Your task to perform on an android device: Add logitech g933 to the cart on costco.com, then select checkout. Image 0: 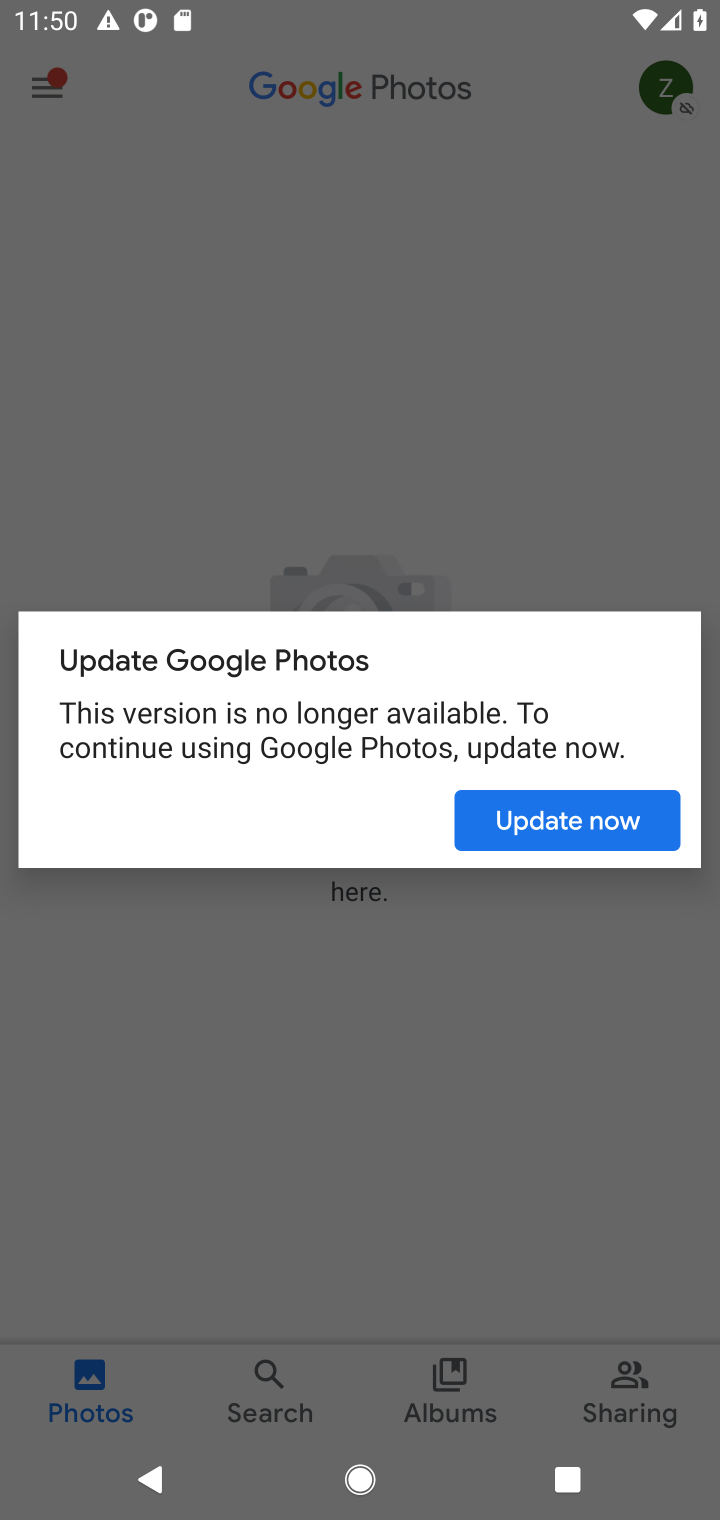
Step 0: press home button
Your task to perform on an android device: Add logitech g933 to the cart on costco.com, then select checkout. Image 1: 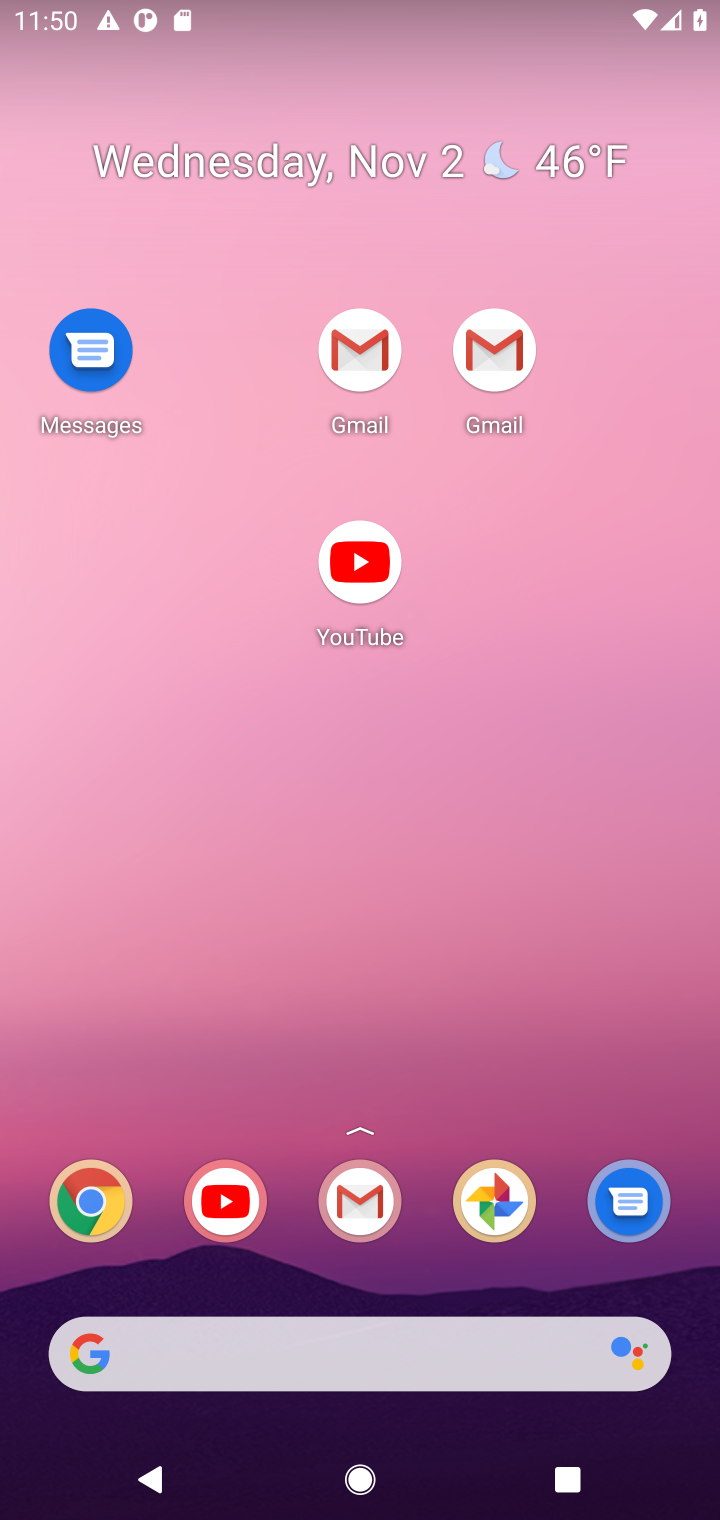
Step 1: drag from (408, 1273) to (540, 165)
Your task to perform on an android device: Add logitech g933 to the cart on costco.com, then select checkout. Image 2: 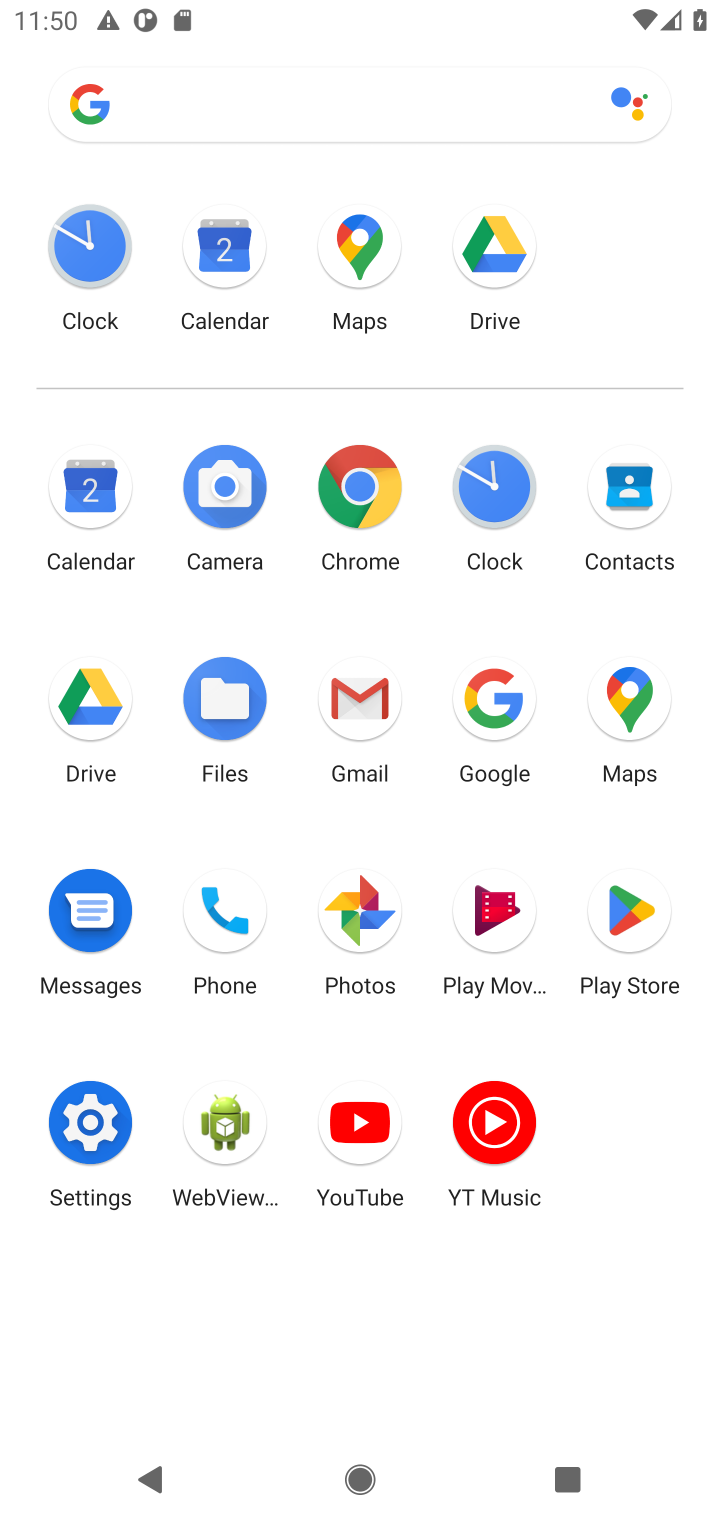
Step 2: click (361, 484)
Your task to perform on an android device: Add logitech g933 to the cart on costco.com, then select checkout. Image 3: 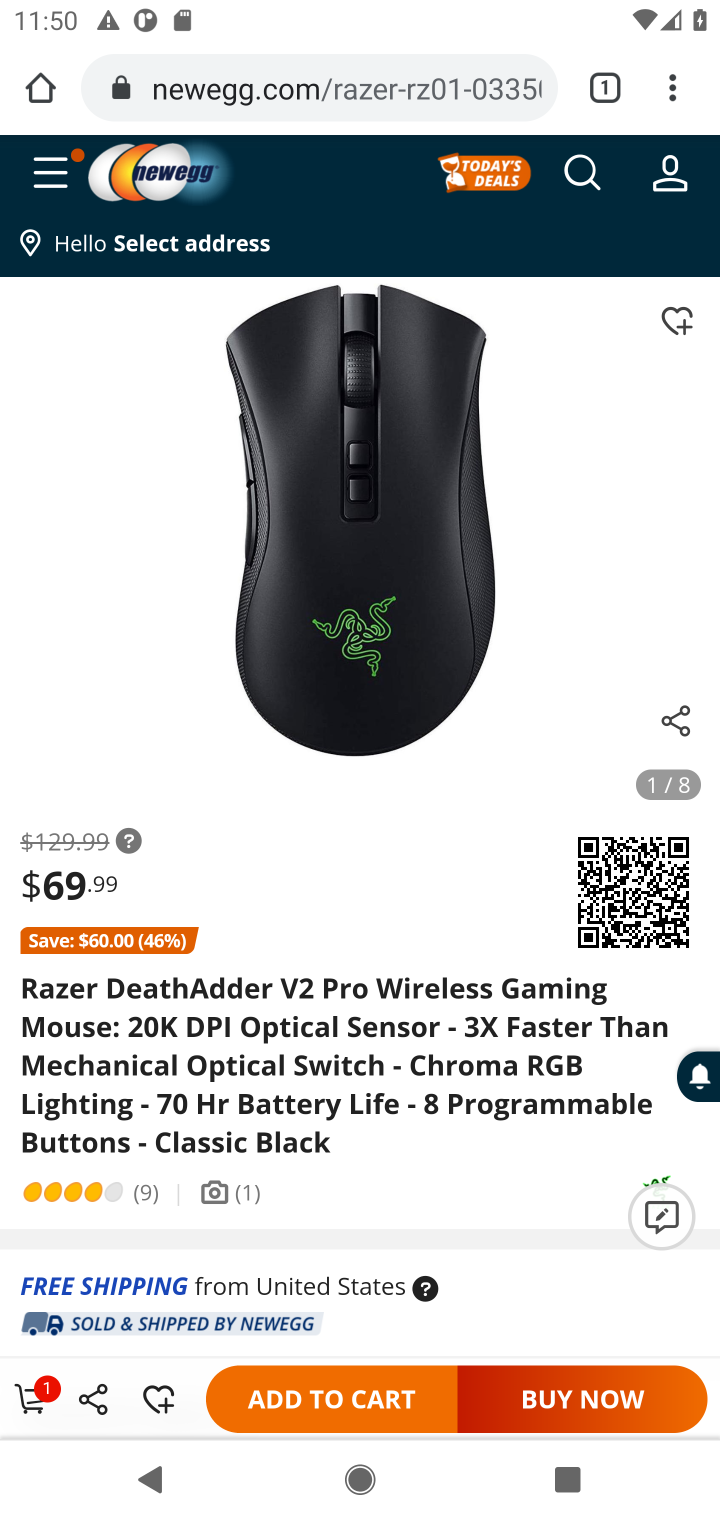
Step 3: click (359, 105)
Your task to perform on an android device: Add logitech g933 to the cart on costco.com, then select checkout. Image 4: 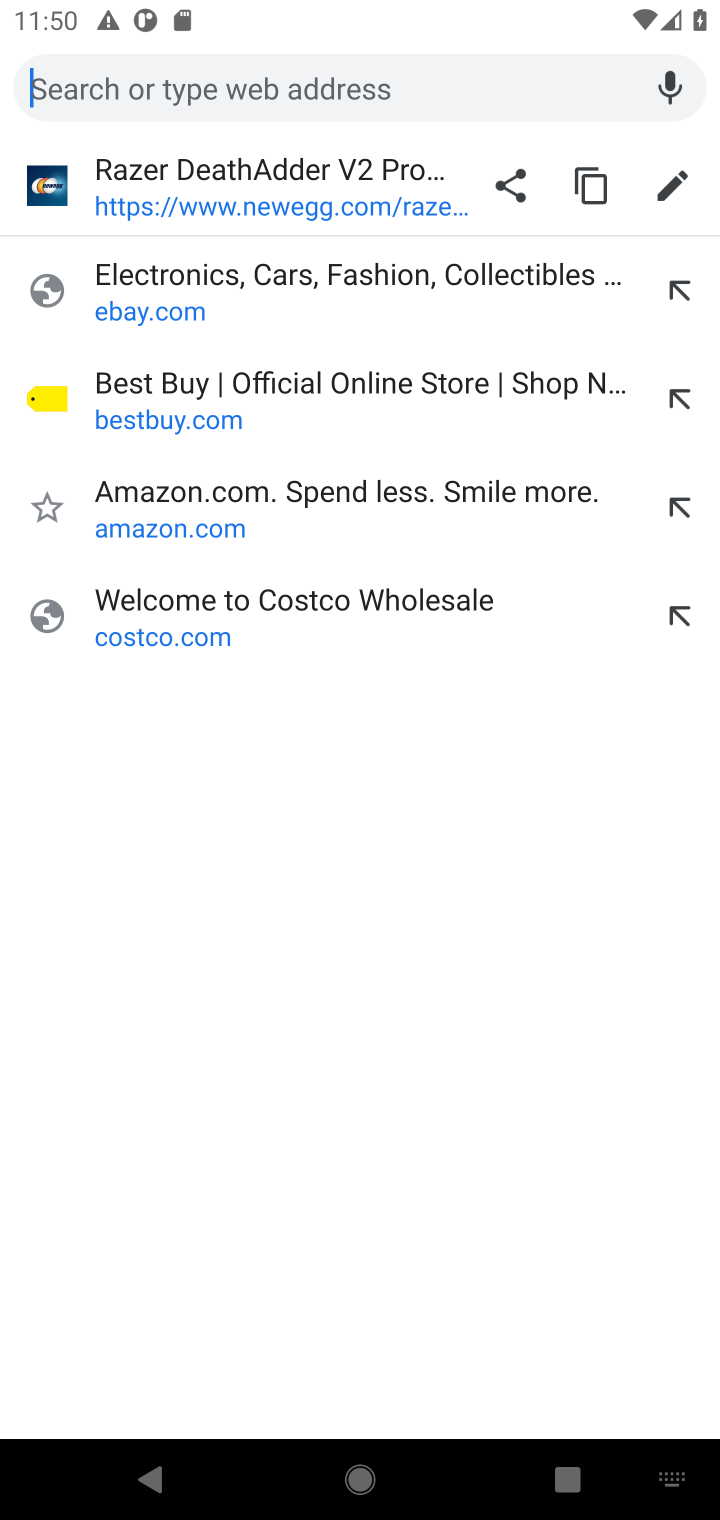
Step 4: type "costco.com"
Your task to perform on an android device: Add logitech g933 to the cart on costco.com, then select checkout. Image 5: 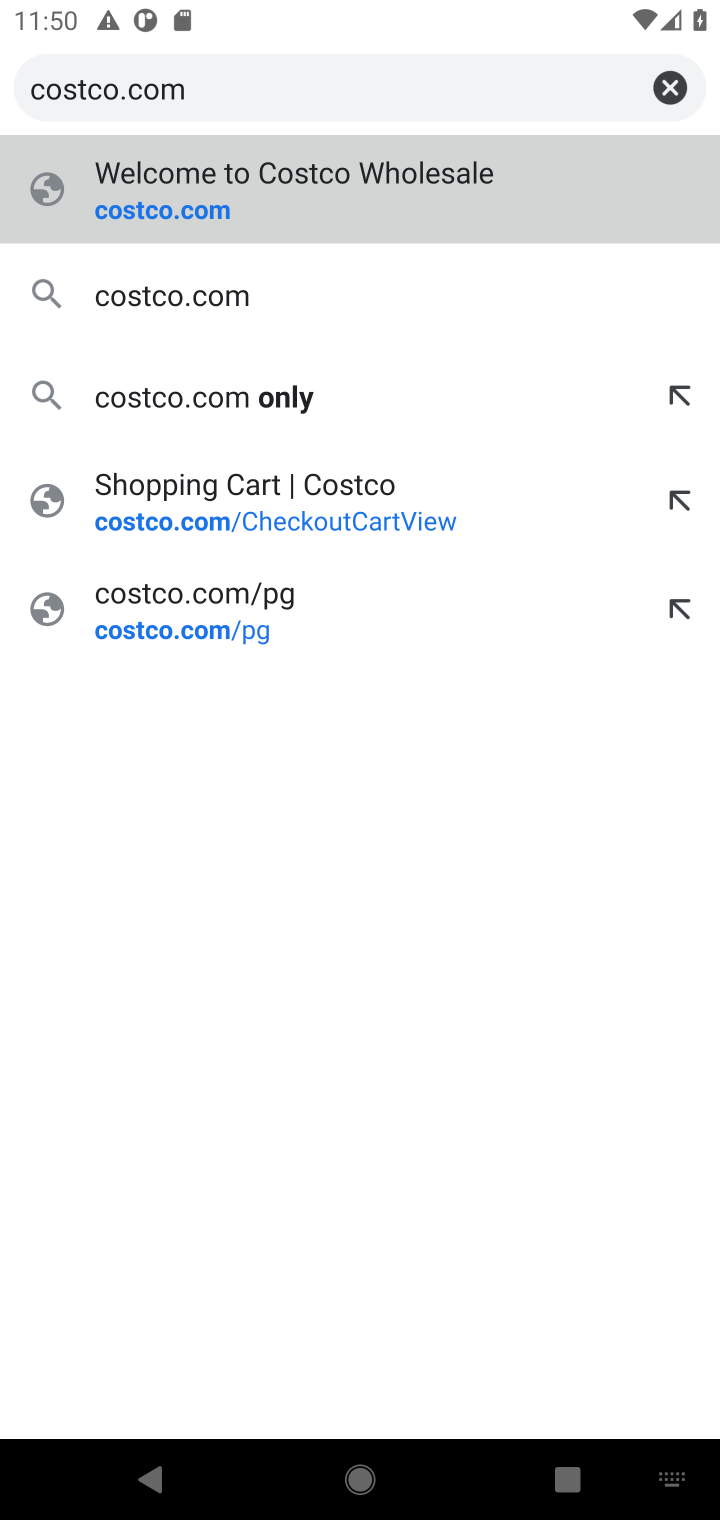
Step 5: press enter
Your task to perform on an android device: Add logitech g933 to the cart on costco.com, then select checkout. Image 6: 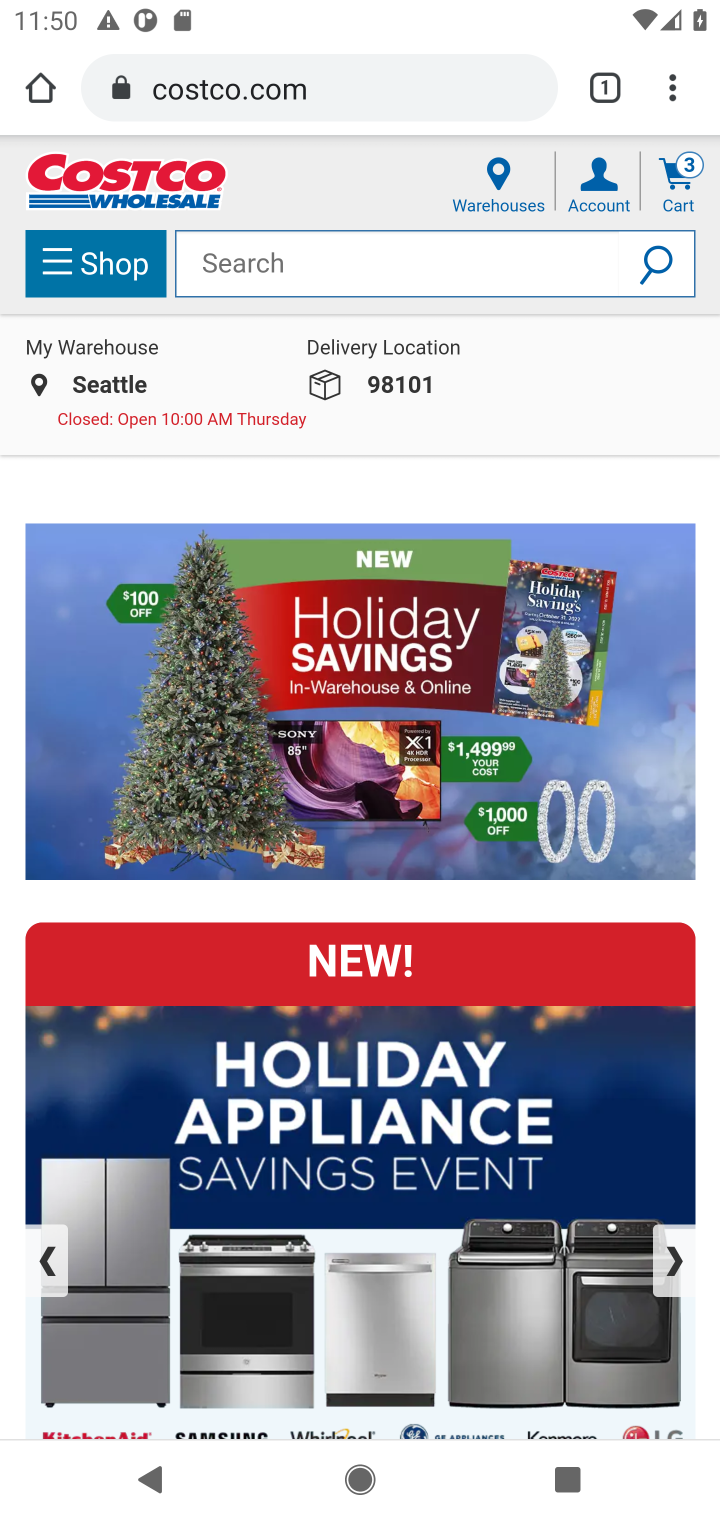
Step 6: click (471, 259)
Your task to perform on an android device: Add logitech g933 to the cart on costco.com, then select checkout. Image 7: 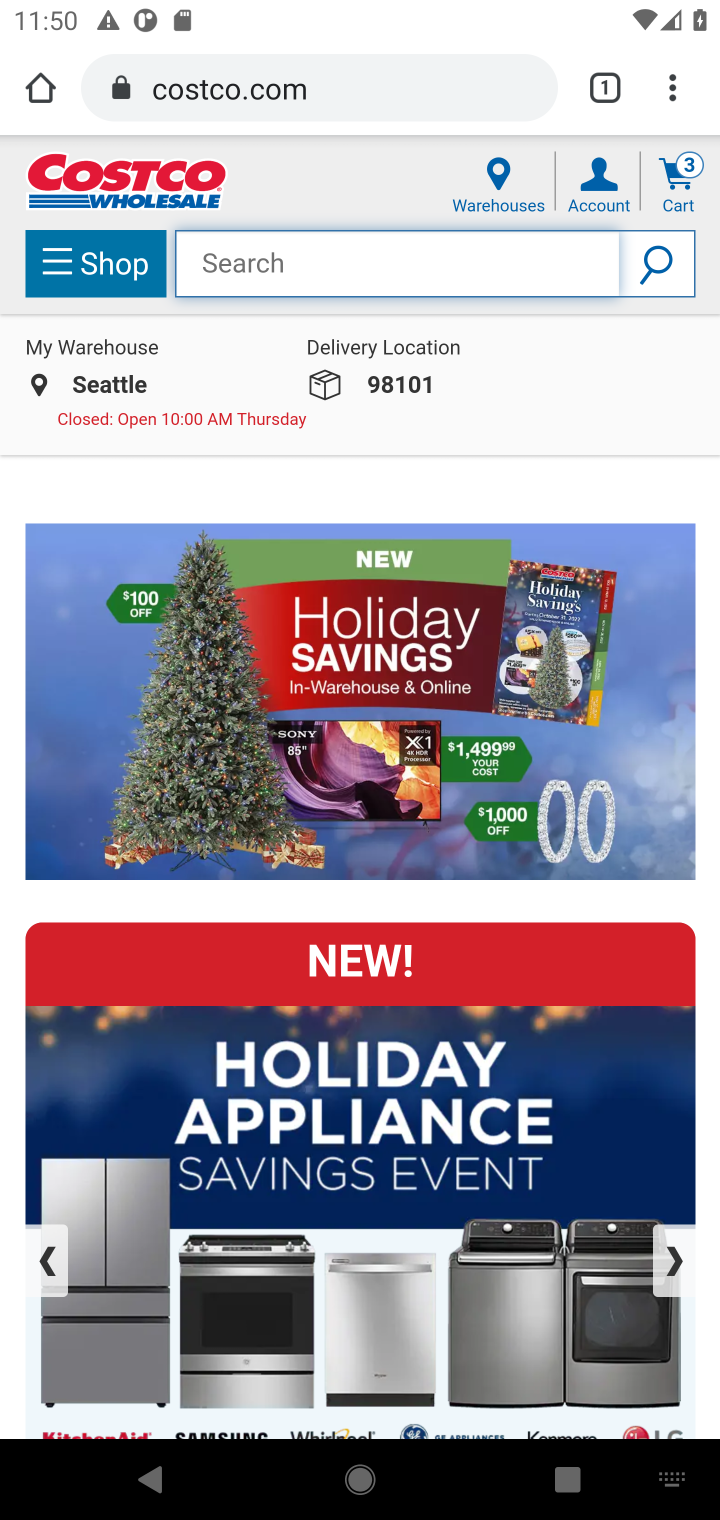
Step 7: type "logitech g933"
Your task to perform on an android device: Add logitech g933 to the cart on costco.com, then select checkout. Image 8: 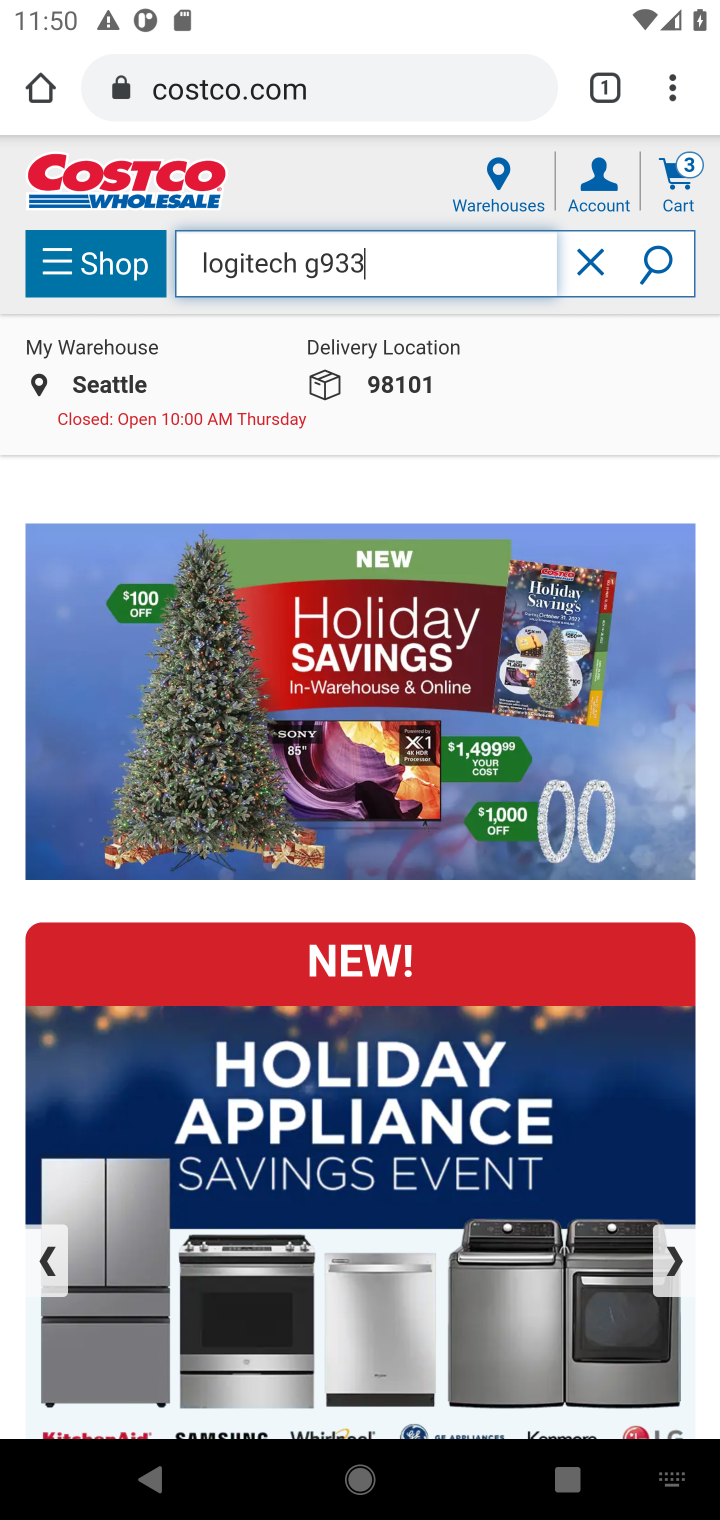
Step 8: press enter
Your task to perform on an android device: Add logitech g933 to the cart on costco.com, then select checkout. Image 9: 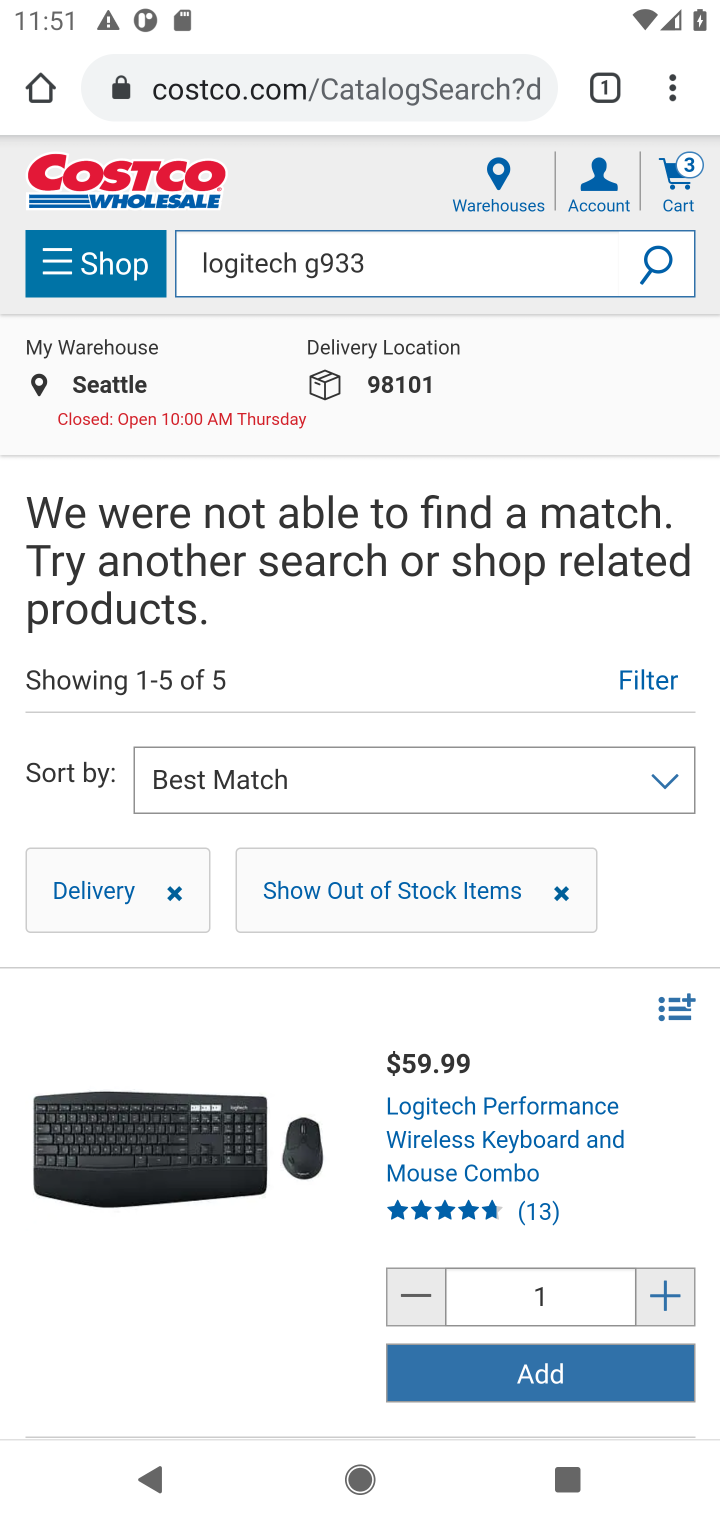
Step 9: task complete